Your task to perform on an android device: toggle improve location accuracy Image 0: 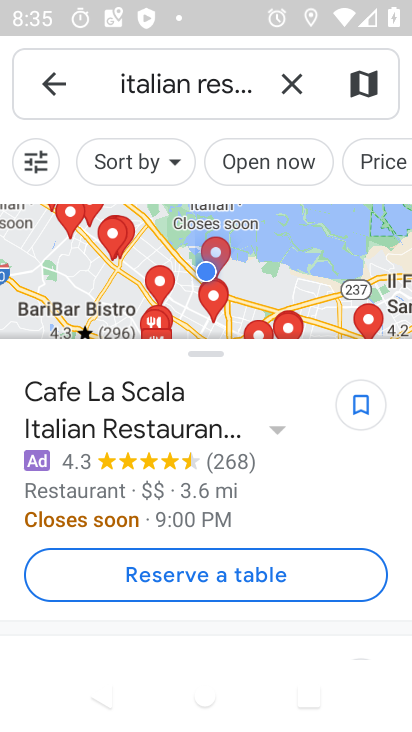
Step 0: press home button
Your task to perform on an android device: toggle improve location accuracy Image 1: 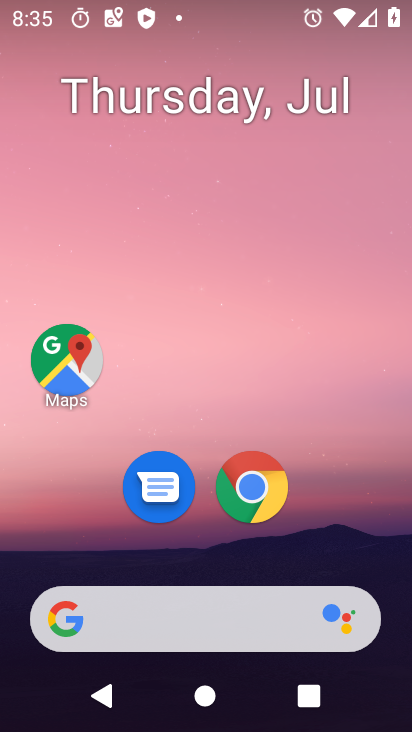
Step 1: drag from (223, 617) to (262, 245)
Your task to perform on an android device: toggle improve location accuracy Image 2: 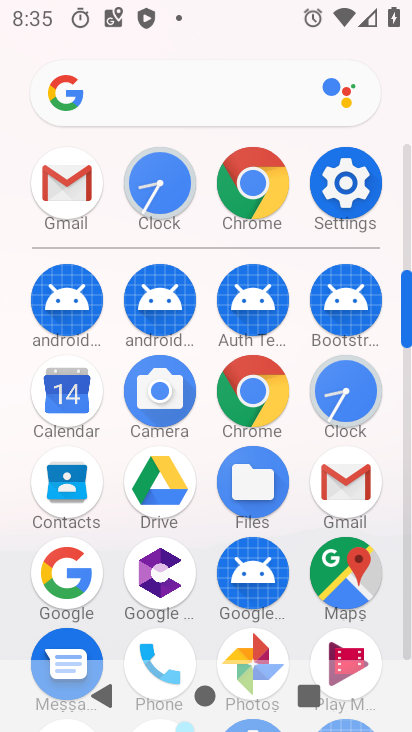
Step 2: click (353, 188)
Your task to perform on an android device: toggle improve location accuracy Image 3: 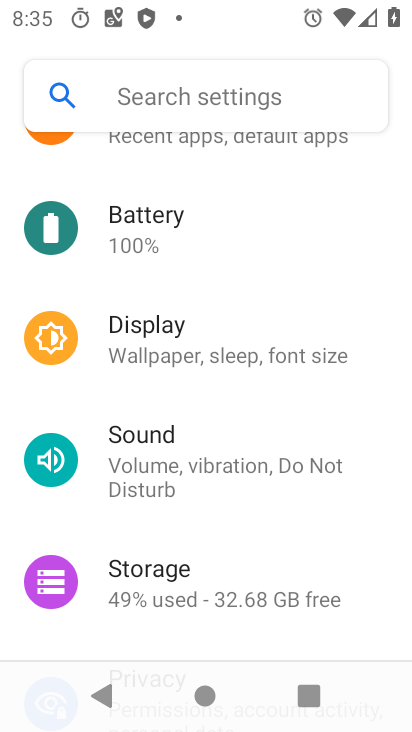
Step 3: drag from (268, 416) to (243, 628)
Your task to perform on an android device: toggle improve location accuracy Image 4: 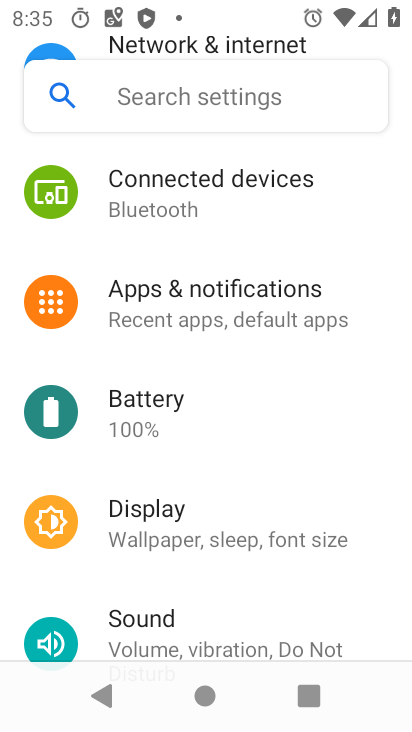
Step 4: drag from (219, 319) to (252, 82)
Your task to perform on an android device: toggle improve location accuracy Image 5: 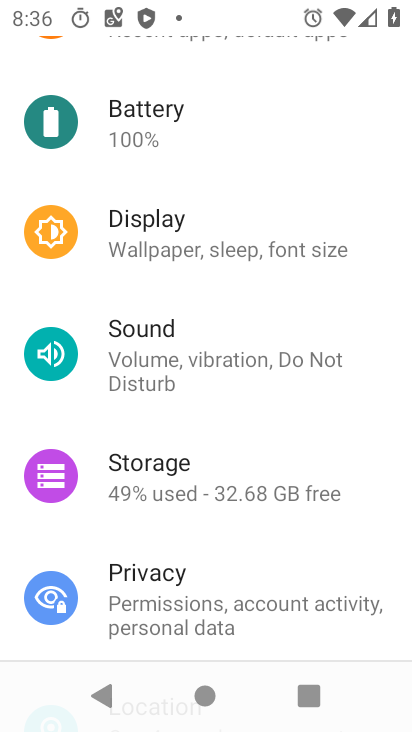
Step 5: drag from (212, 473) to (226, 108)
Your task to perform on an android device: toggle improve location accuracy Image 6: 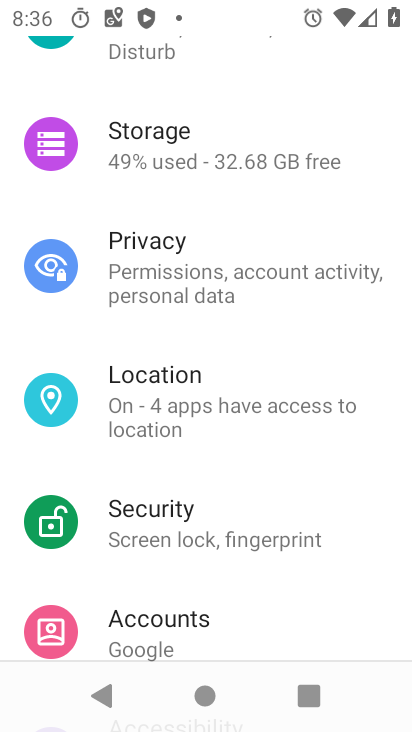
Step 6: click (205, 420)
Your task to perform on an android device: toggle improve location accuracy Image 7: 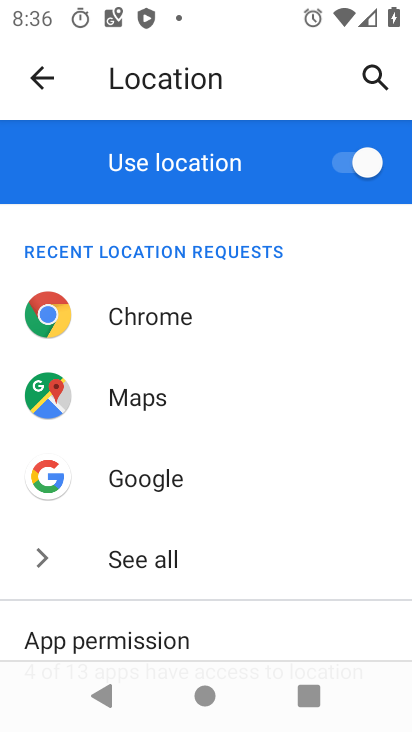
Step 7: drag from (172, 596) to (178, 332)
Your task to perform on an android device: toggle improve location accuracy Image 8: 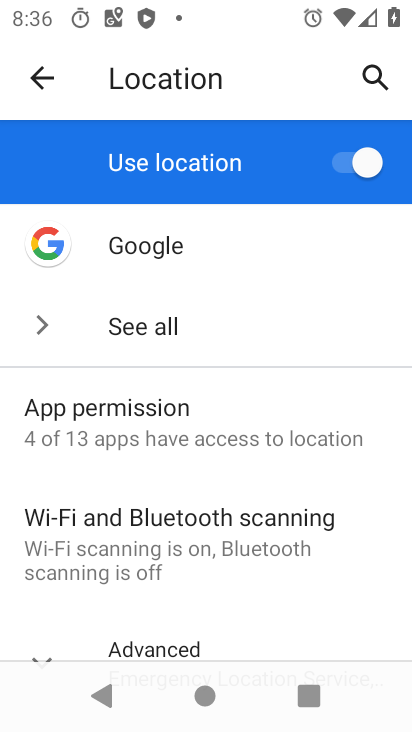
Step 8: drag from (154, 548) to (126, 176)
Your task to perform on an android device: toggle improve location accuracy Image 9: 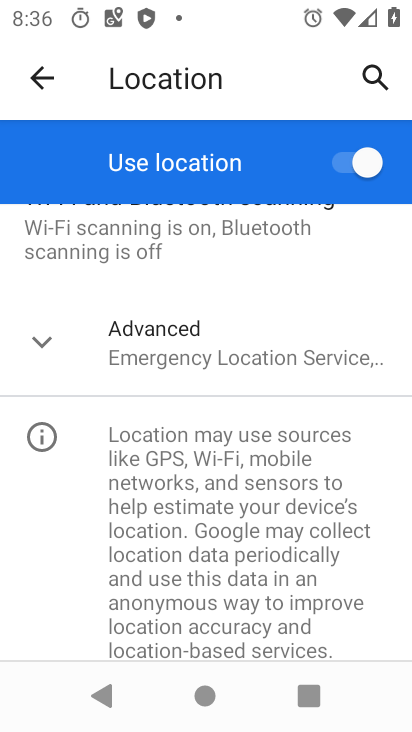
Step 9: click (130, 366)
Your task to perform on an android device: toggle improve location accuracy Image 10: 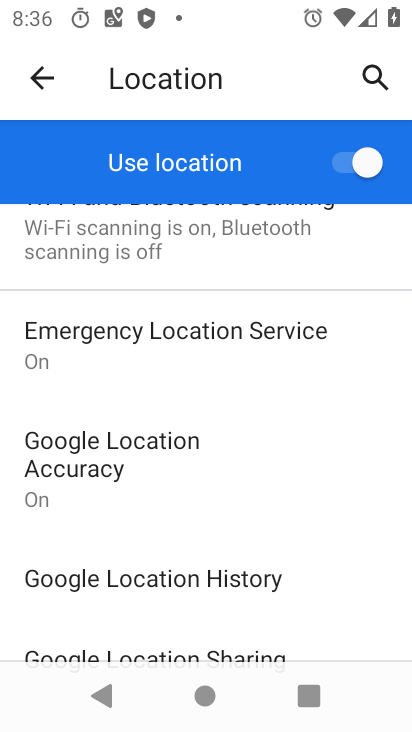
Step 10: drag from (169, 521) to (142, 361)
Your task to perform on an android device: toggle improve location accuracy Image 11: 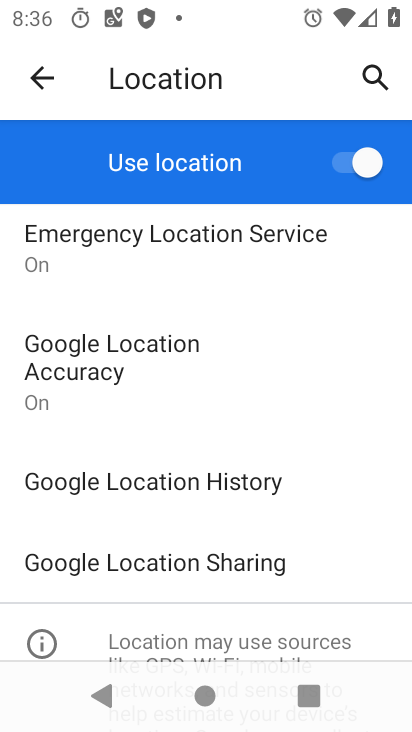
Step 11: click (125, 354)
Your task to perform on an android device: toggle improve location accuracy Image 12: 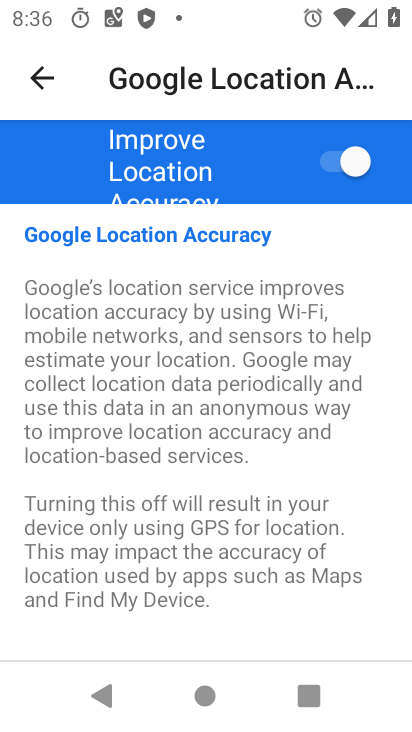
Step 12: click (317, 164)
Your task to perform on an android device: toggle improve location accuracy Image 13: 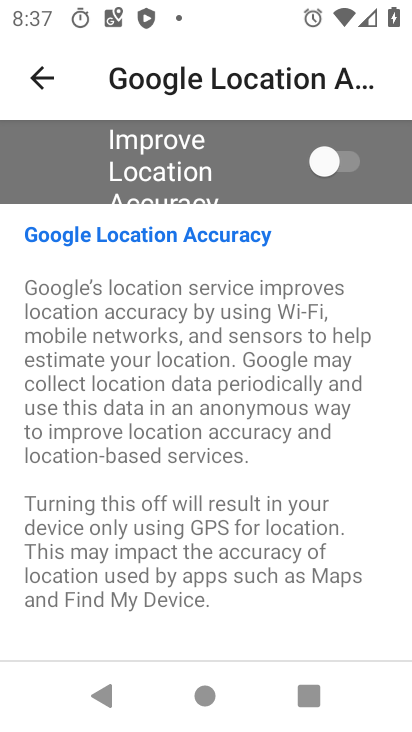
Step 13: task complete